Your task to perform on an android device: toggle pop-ups in chrome Image 0: 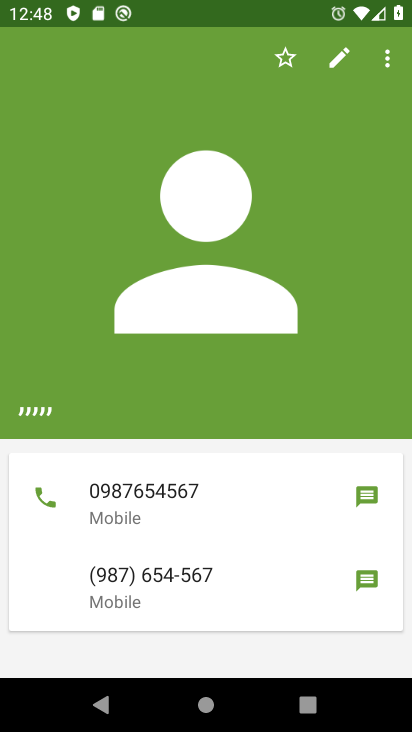
Step 0: press home button
Your task to perform on an android device: toggle pop-ups in chrome Image 1: 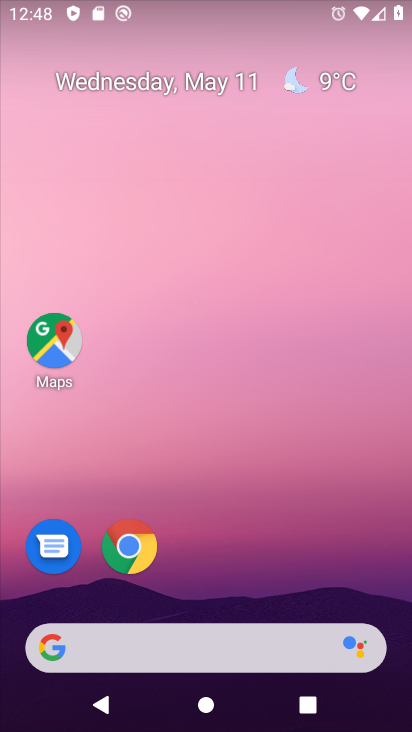
Step 1: drag from (201, 597) to (303, 68)
Your task to perform on an android device: toggle pop-ups in chrome Image 2: 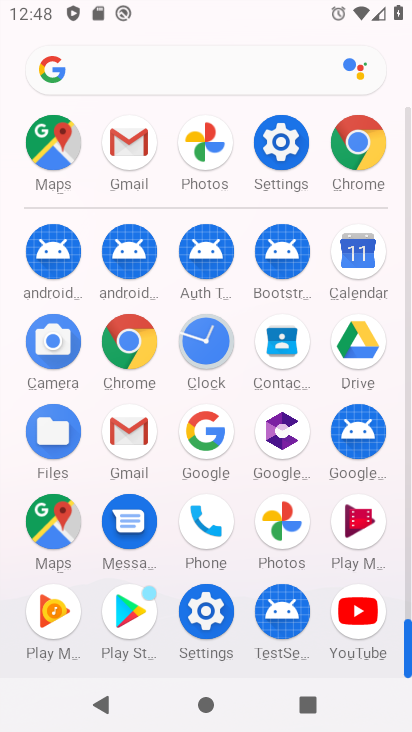
Step 2: click (130, 333)
Your task to perform on an android device: toggle pop-ups in chrome Image 3: 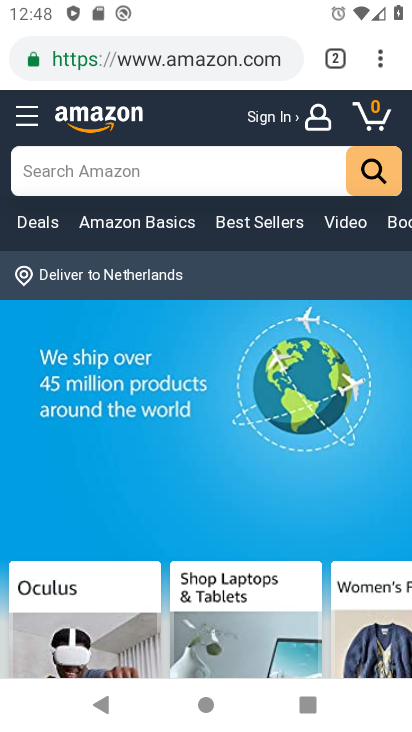
Step 3: click (384, 53)
Your task to perform on an android device: toggle pop-ups in chrome Image 4: 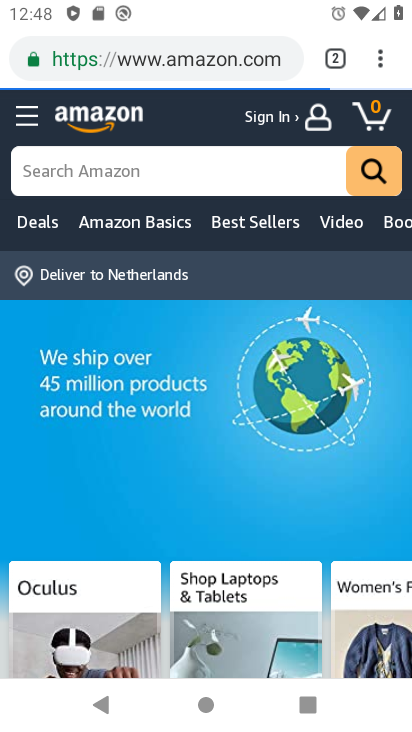
Step 4: drag from (378, 67) to (210, 576)
Your task to perform on an android device: toggle pop-ups in chrome Image 5: 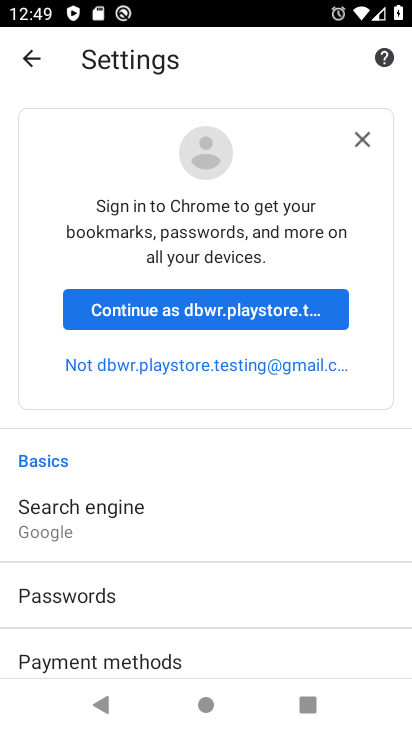
Step 5: drag from (235, 616) to (362, 71)
Your task to perform on an android device: toggle pop-ups in chrome Image 6: 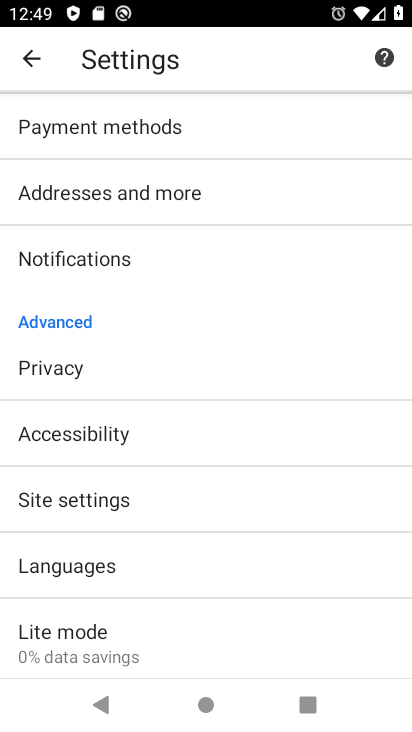
Step 6: click (96, 505)
Your task to perform on an android device: toggle pop-ups in chrome Image 7: 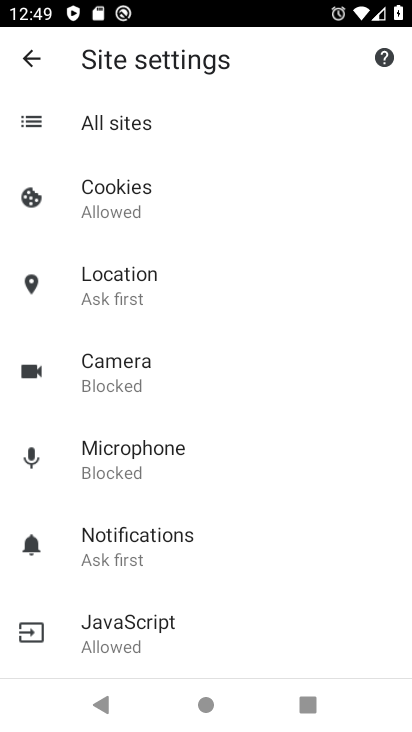
Step 7: drag from (201, 482) to (311, 99)
Your task to perform on an android device: toggle pop-ups in chrome Image 8: 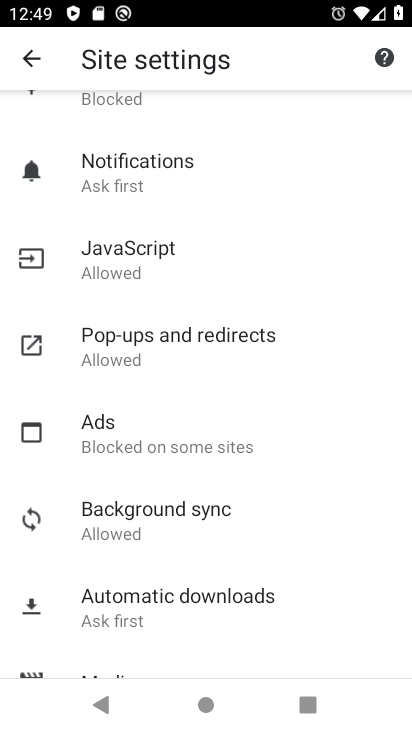
Step 8: click (160, 346)
Your task to perform on an android device: toggle pop-ups in chrome Image 9: 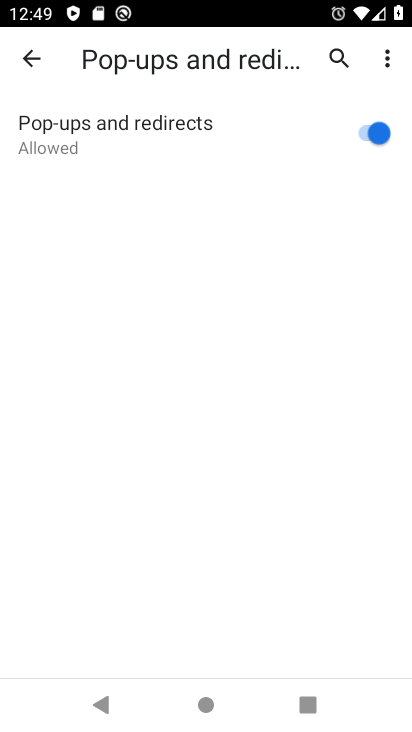
Step 9: click (380, 132)
Your task to perform on an android device: toggle pop-ups in chrome Image 10: 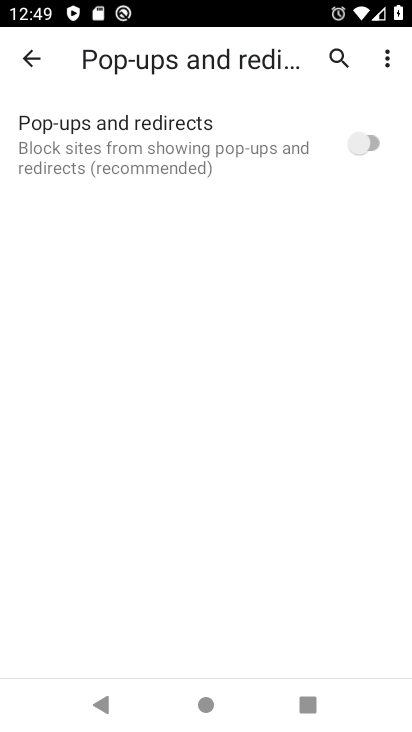
Step 10: task complete